Your task to perform on an android device: open app "Google Sheets" (install if not already installed) Image 0: 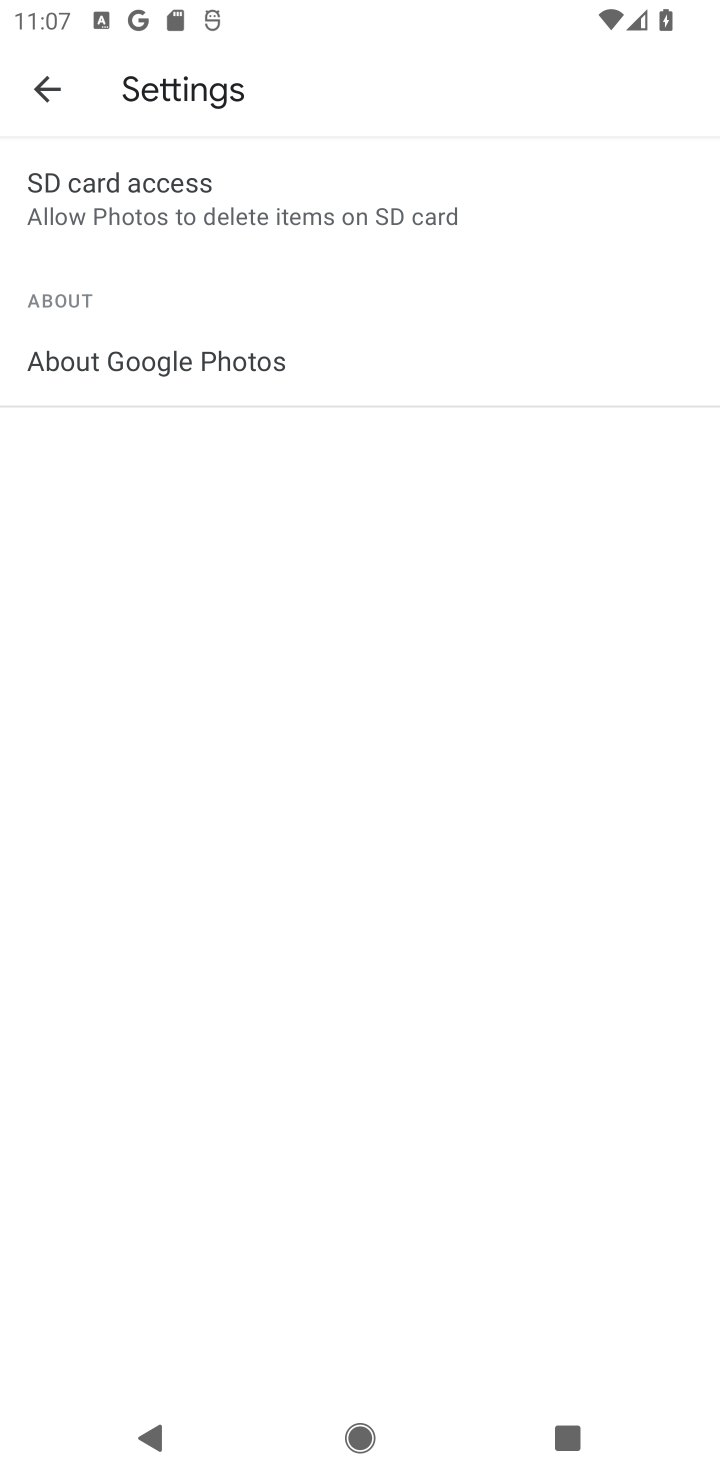
Step 0: press back button
Your task to perform on an android device: open app "Google Sheets" (install if not already installed) Image 1: 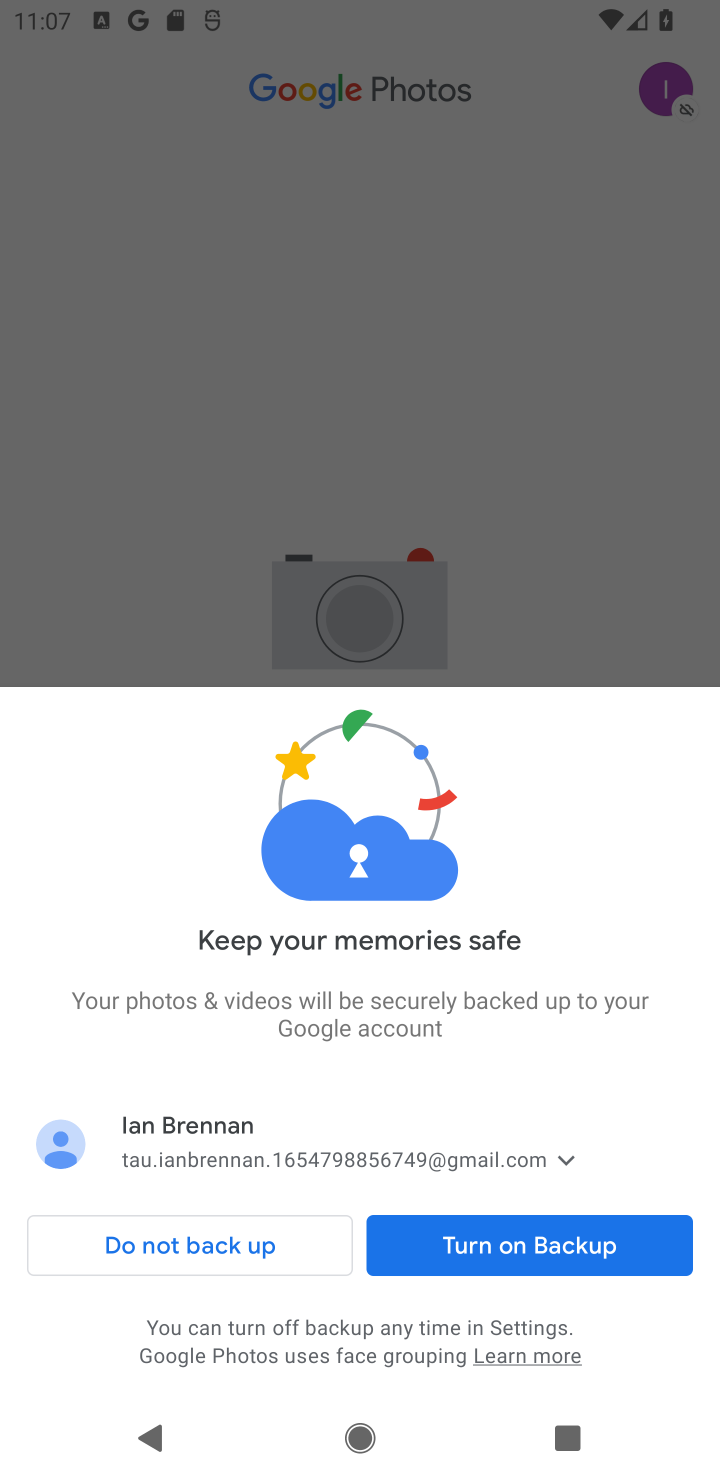
Step 1: press back button
Your task to perform on an android device: open app "Google Sheets" (install if not already installed) Image 2: 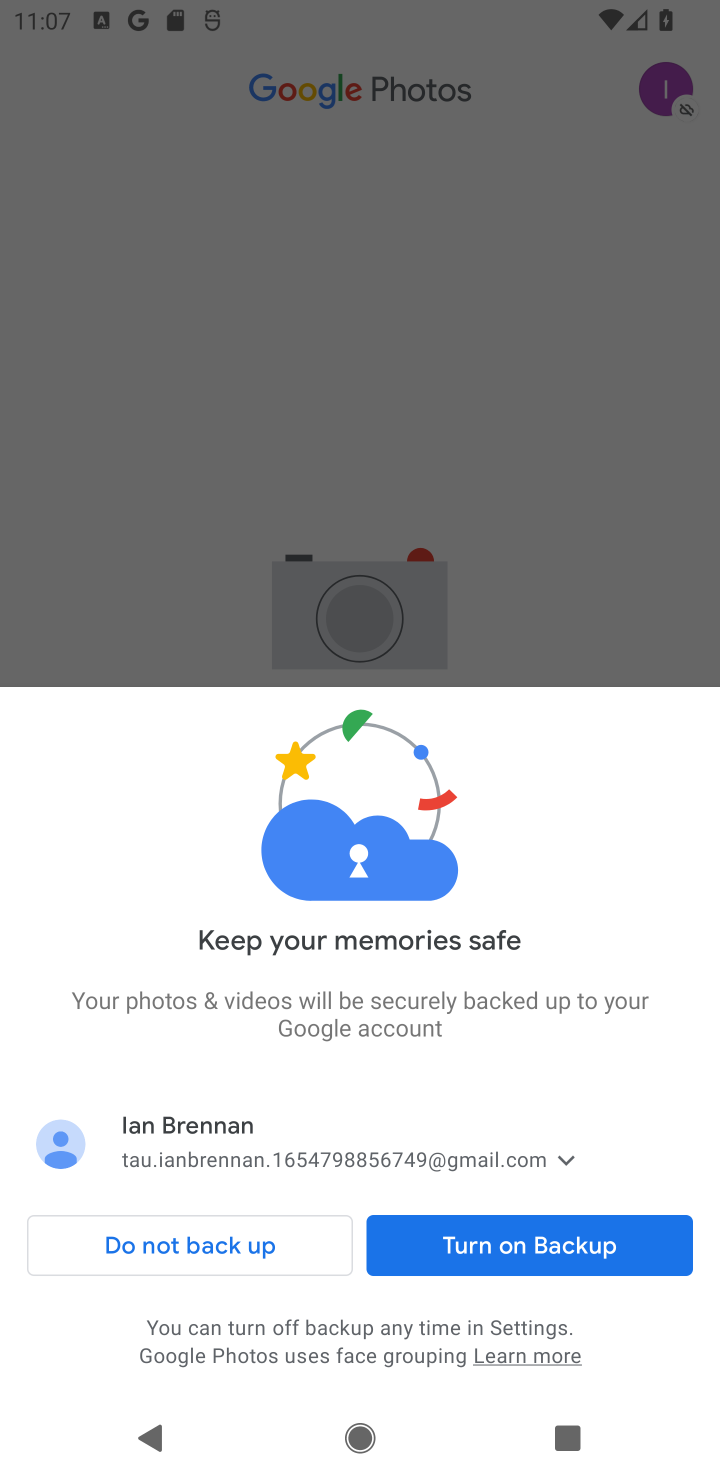
Step 2: press home button
Your task to perform on an android device: open app "Google Sheets" (install if not already installed) Image 3: 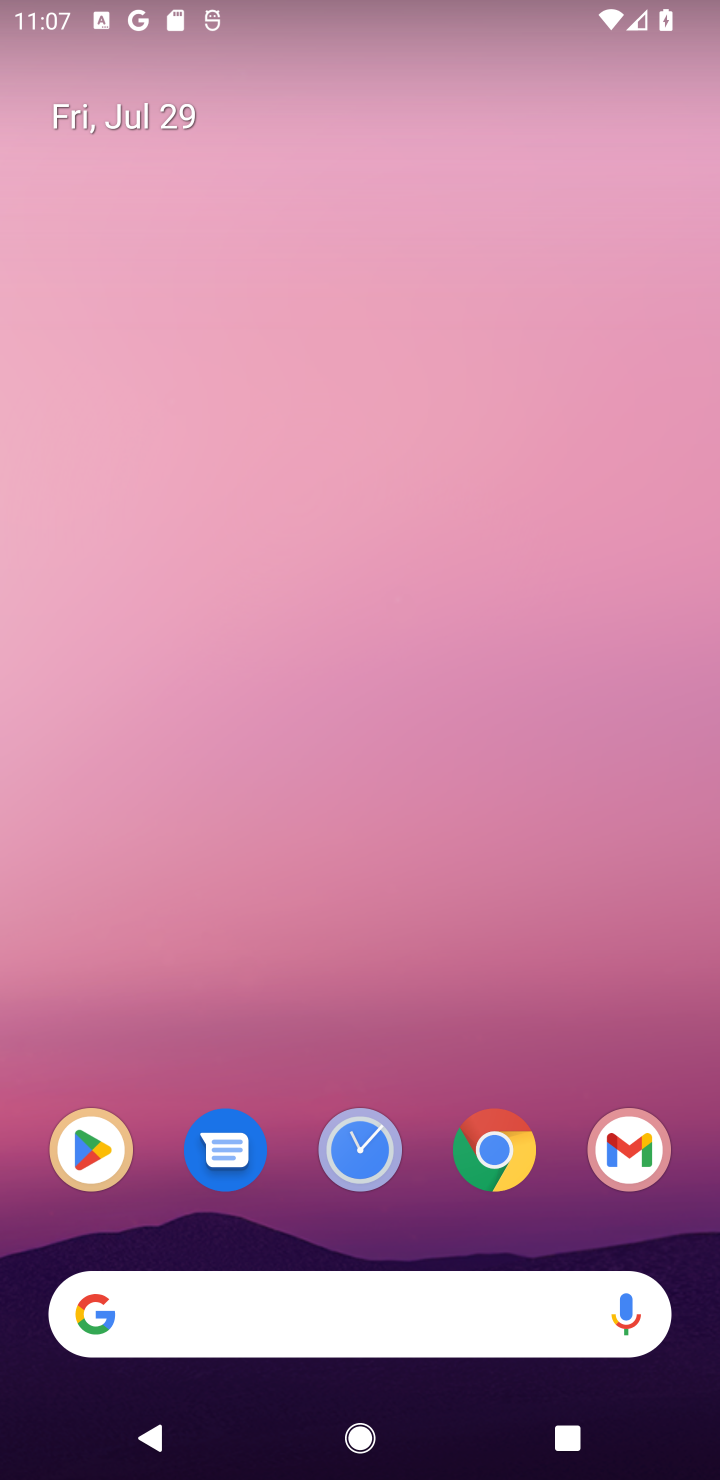
Step 3: click (93, 1165)
Your task to perform on an android device: open app "Google Sheets" (install if not already installed) Image 4: 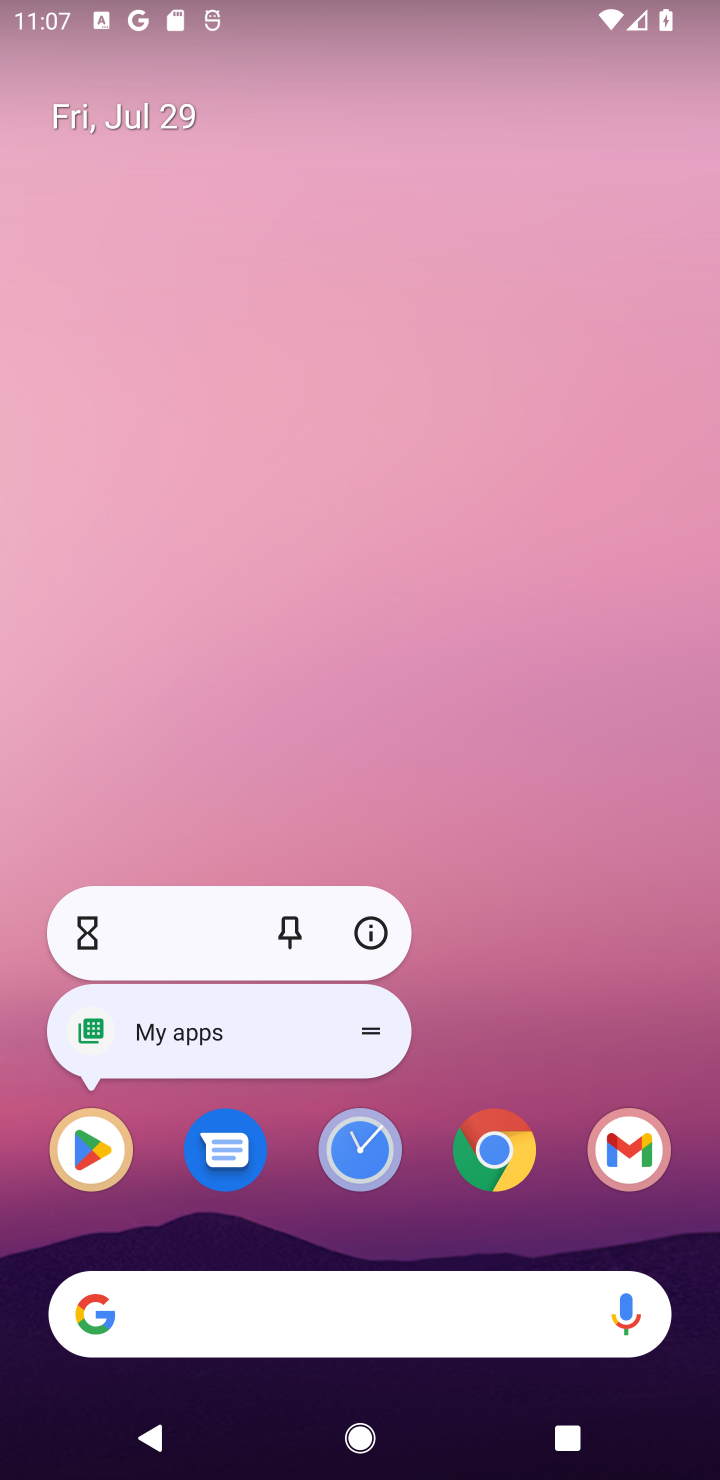
Step 4: click (97, 1157)
Your task to perform on an android device: open app "Google Sheets" (install if not already installed) Image 5: 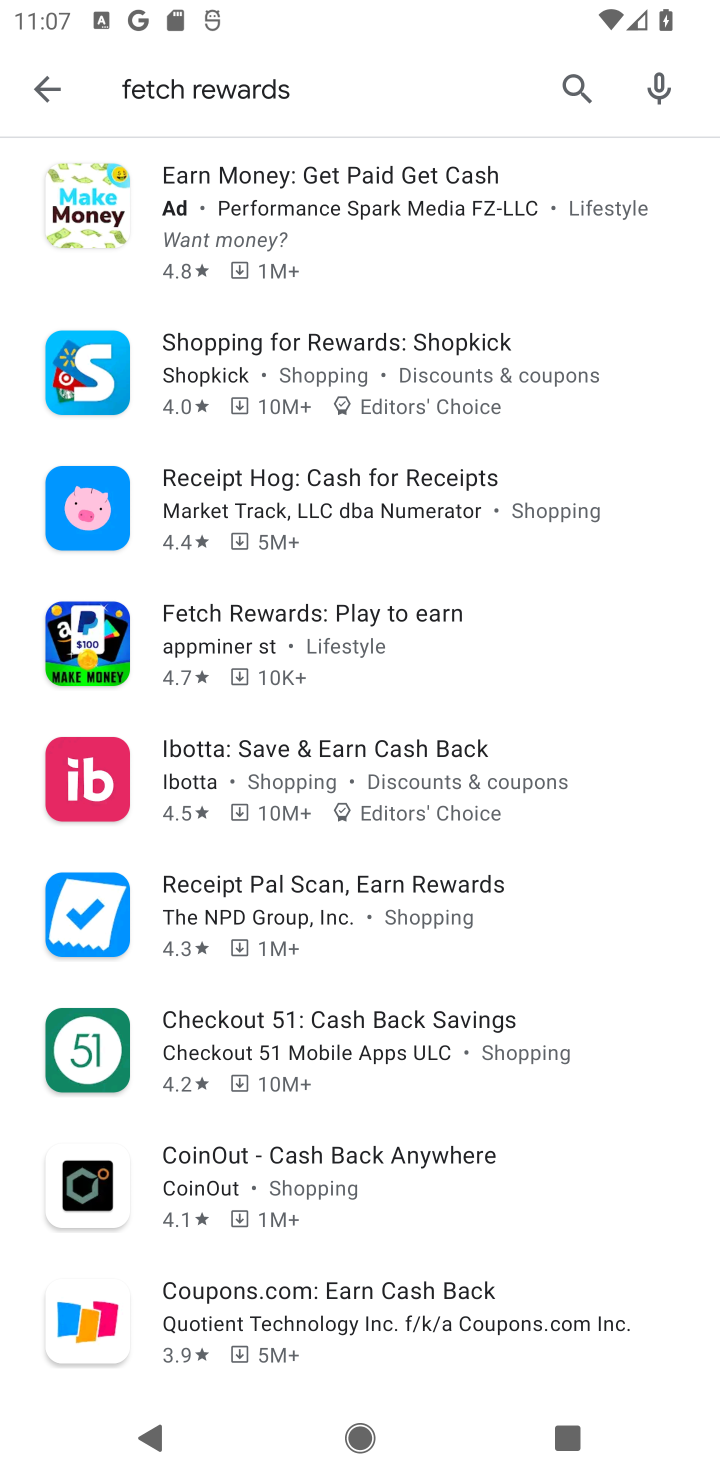
Step 5: click (585, 72)
Your task to perform on an android device: open app "Google Sheets" (install if not already installed) Image 6: 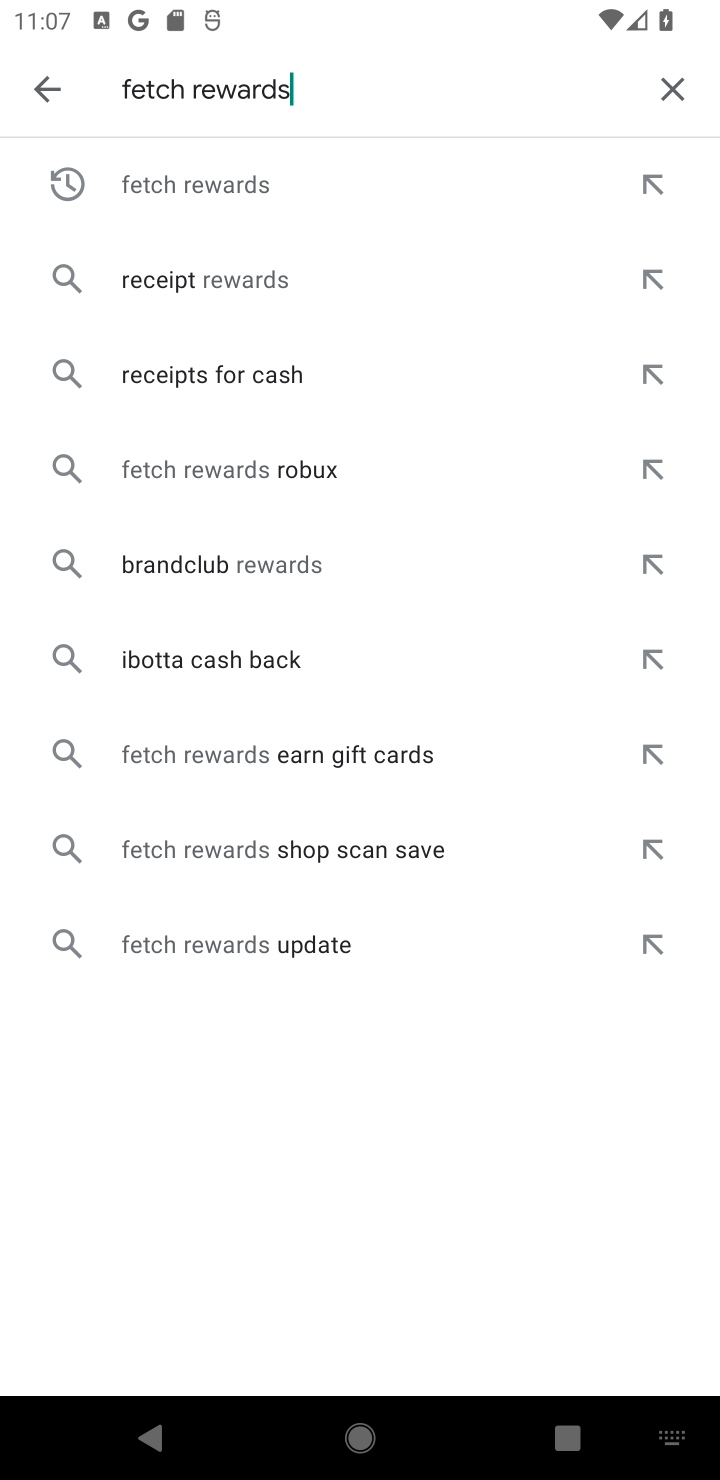
Step 6: click (644, 84)
Your task to perform on an android device: open app "Google Sheets" (install if not already installed) Image 7: 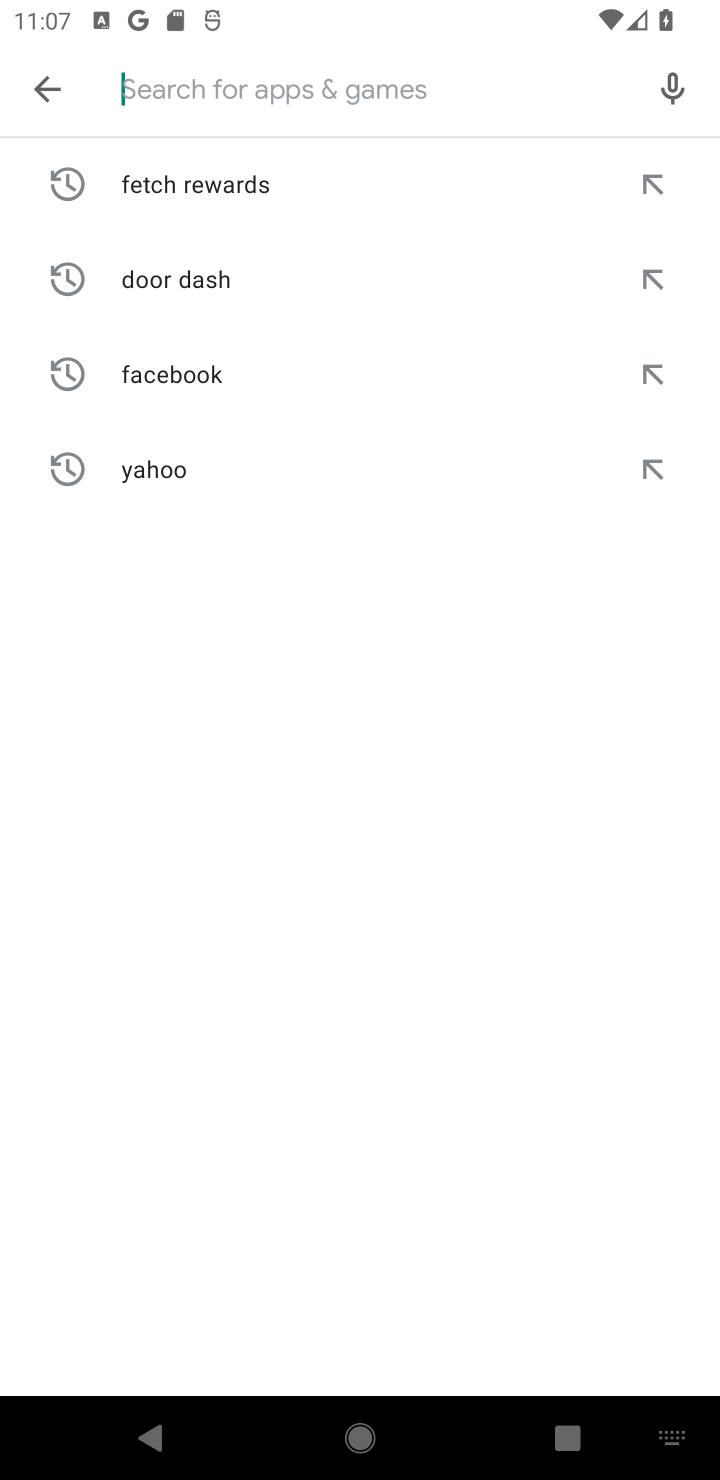
Step 7: click (237, 87)
Your task to perform on an android device: open app "Google Sheets" (install if not already installed) Image 8: 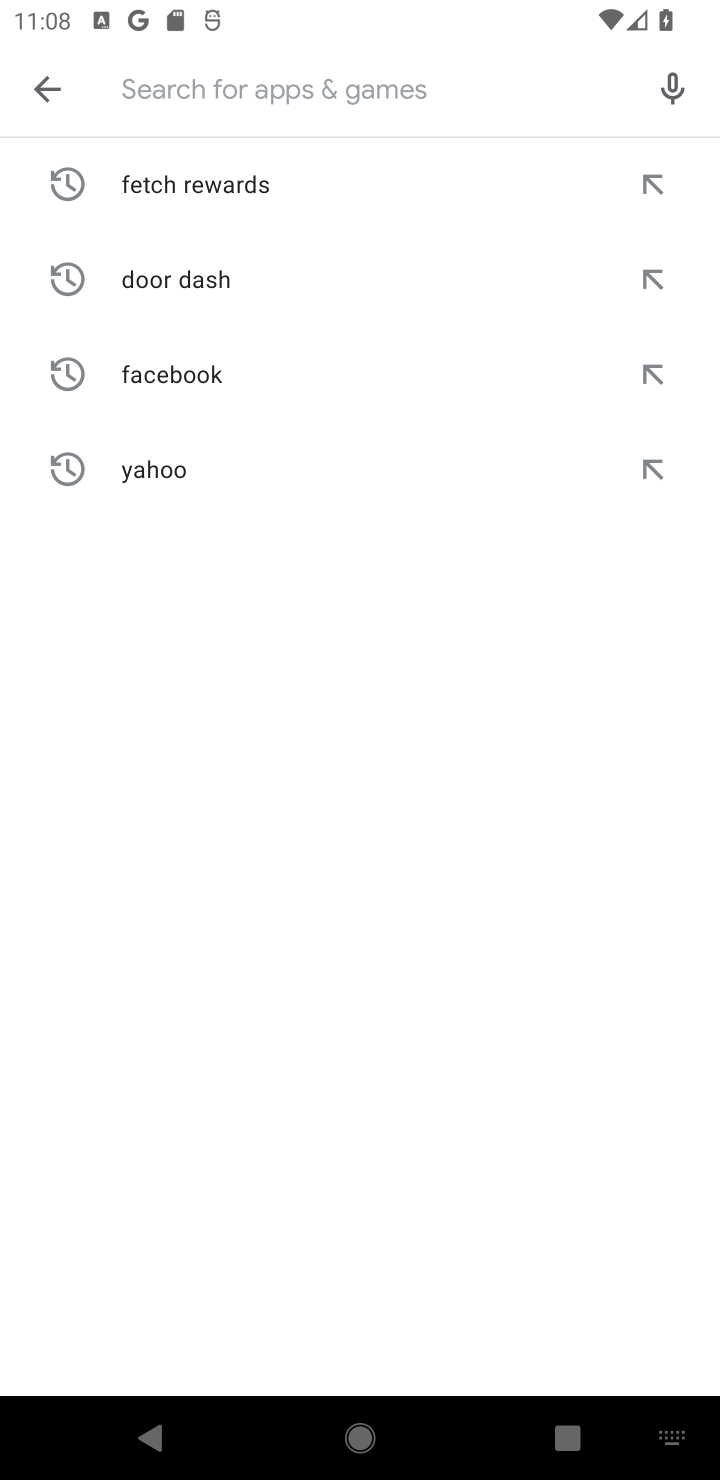
Step 8: type "google sheets"
Your task to perform on an android device: open app "Google Sheets" (install if not already installed) Image 9: 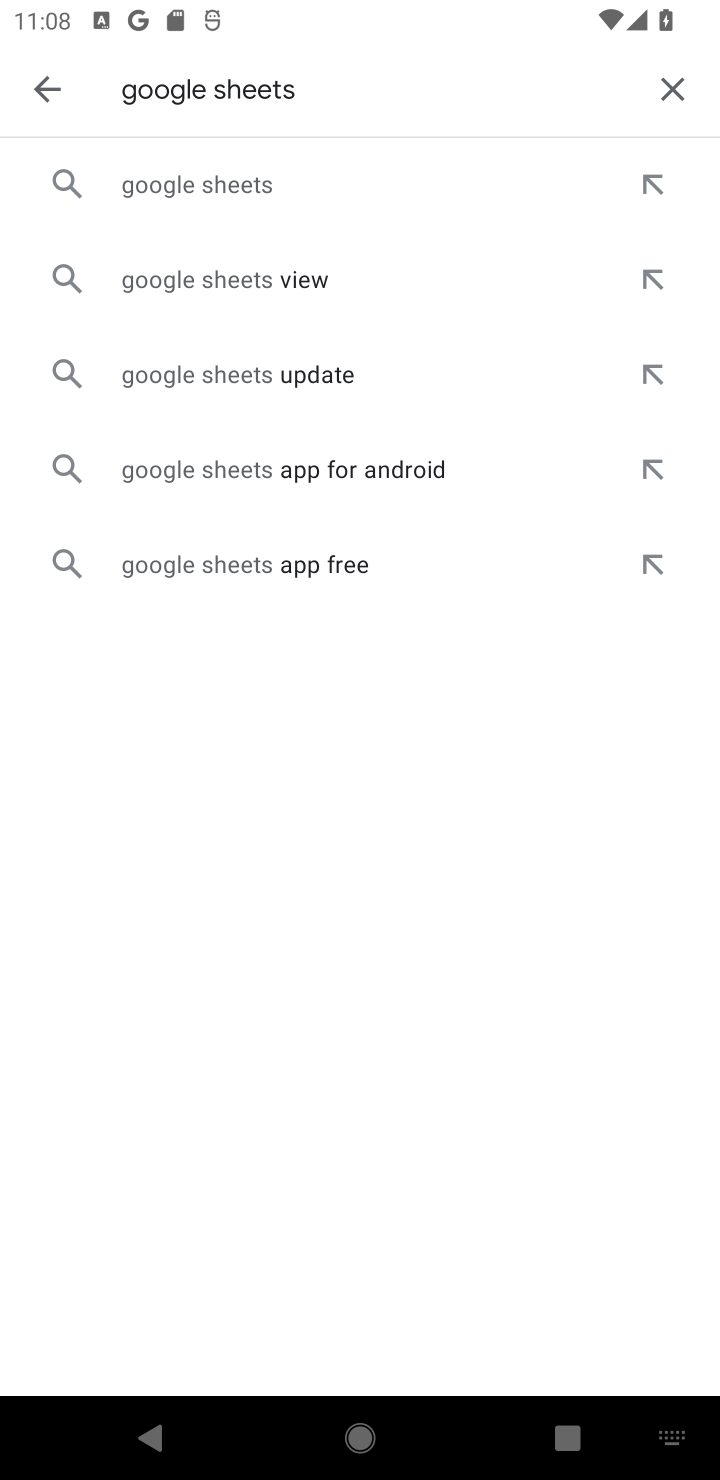
Step 9: click (272, 179)
Your task to perform on an android device: open app "Google Sheets" (install if not already installed) Image 10: 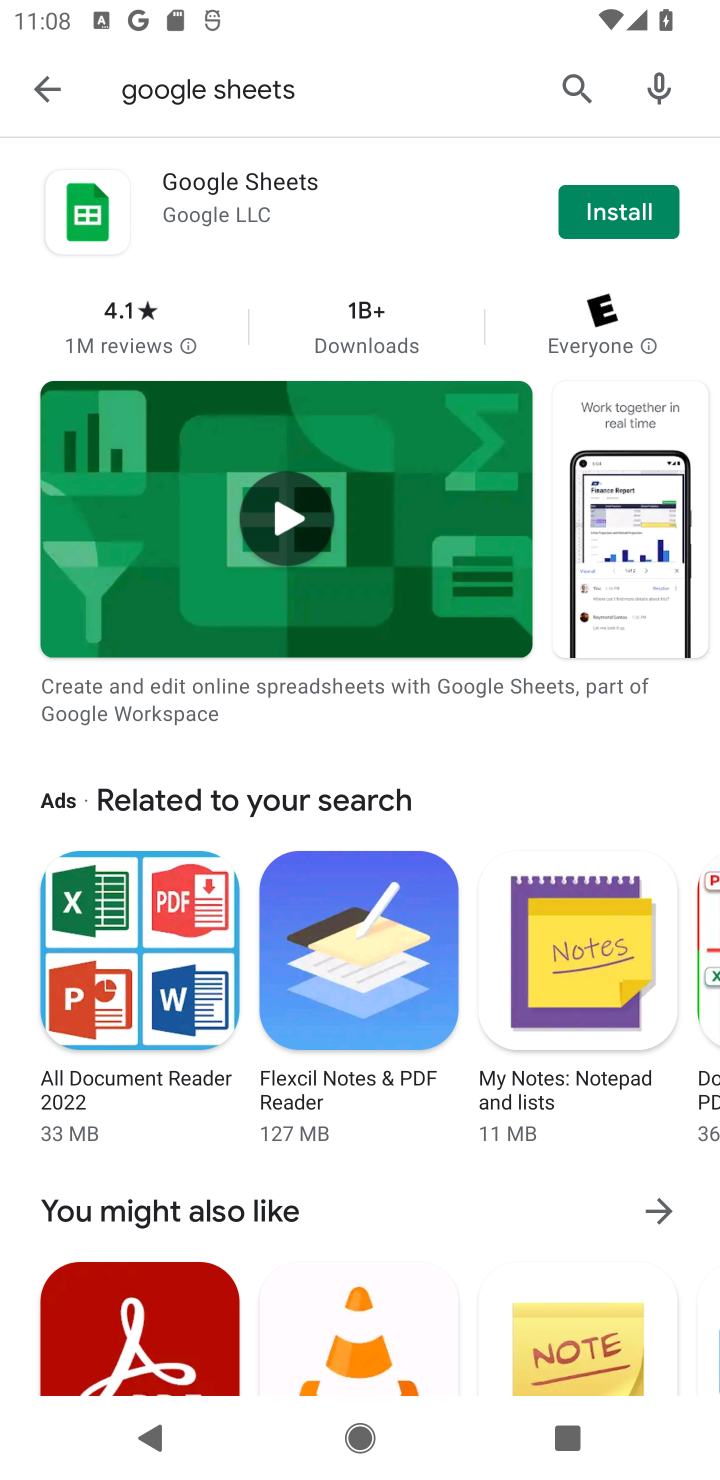
Step 10: click (628, 207)
Your task to perform on an android device: open app "Google Sheets" (install if not already installed) Image 11: 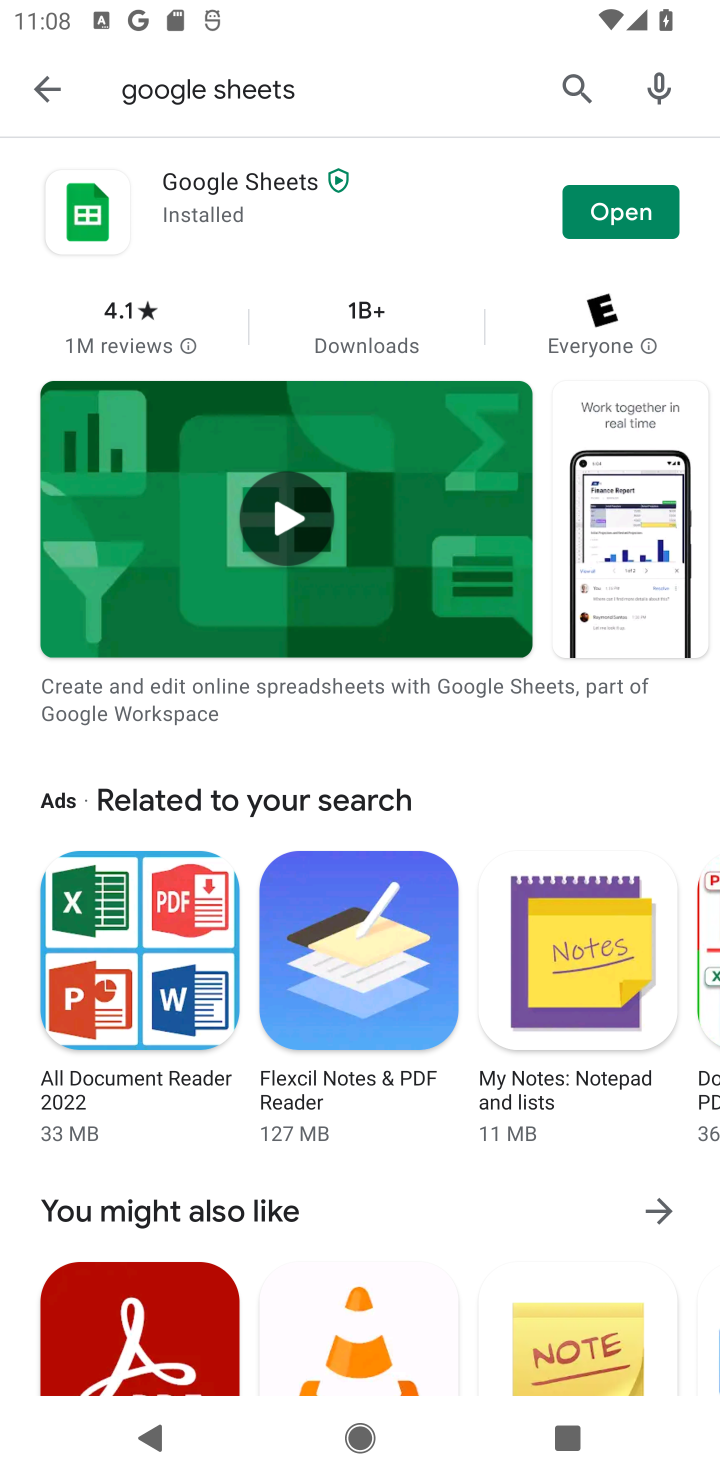
Step 11: click (646, 196)
Your task to perform on an android device: open app "Google Sheets" (install if not already installed) Image 12: 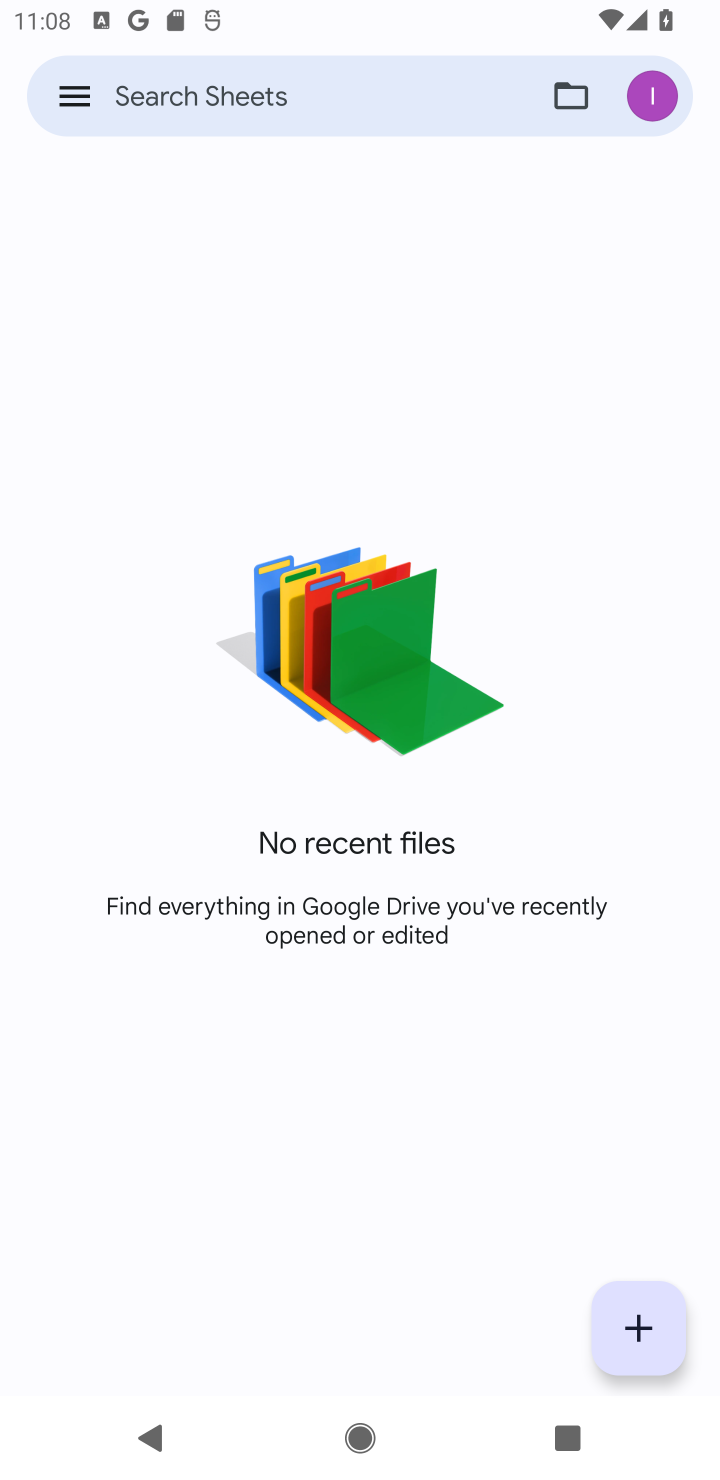
Step 12: press back button
Your task to perform on an android device: open app "Google Sheets" (install if not already installed) Image 13: 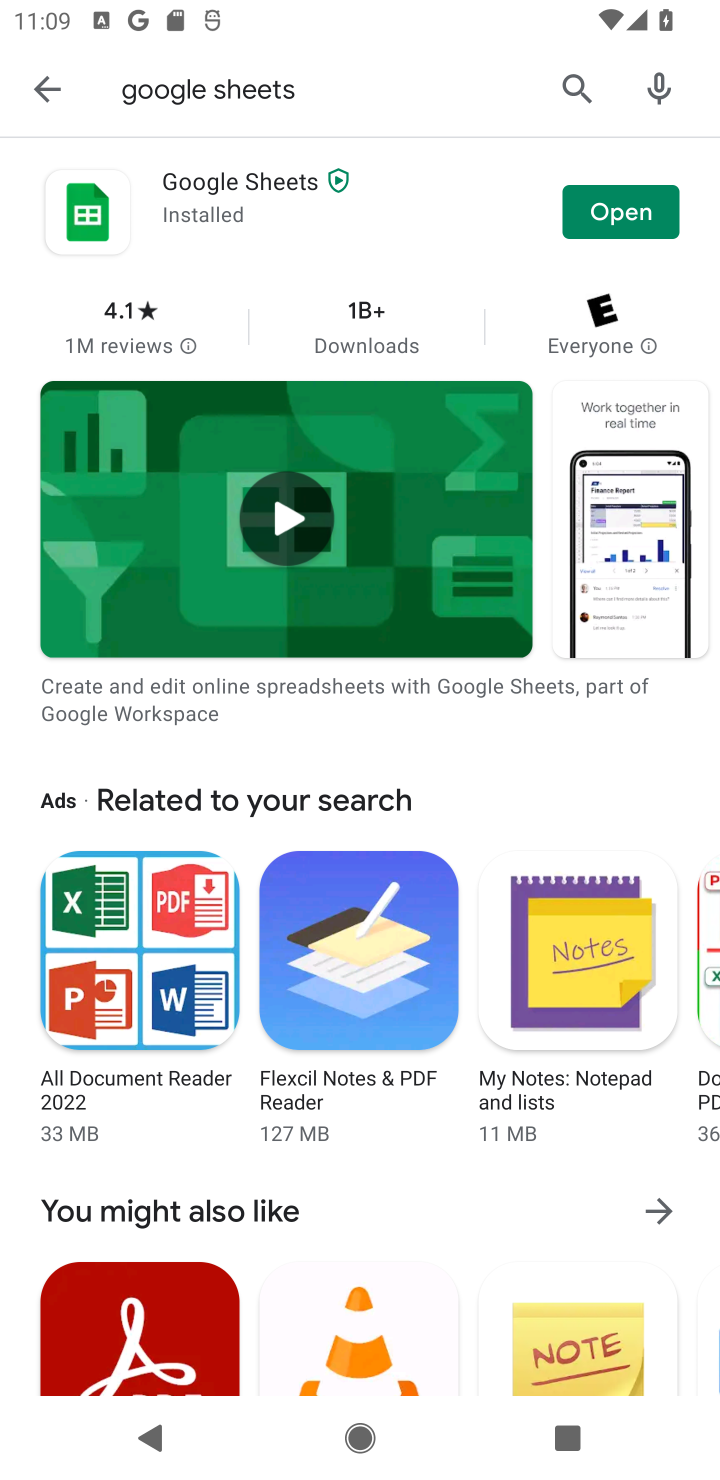
Step 13: click (645, 209)
Your task to perform on an android device: open app "Google Sheets" (install if not already installed) Image 14: 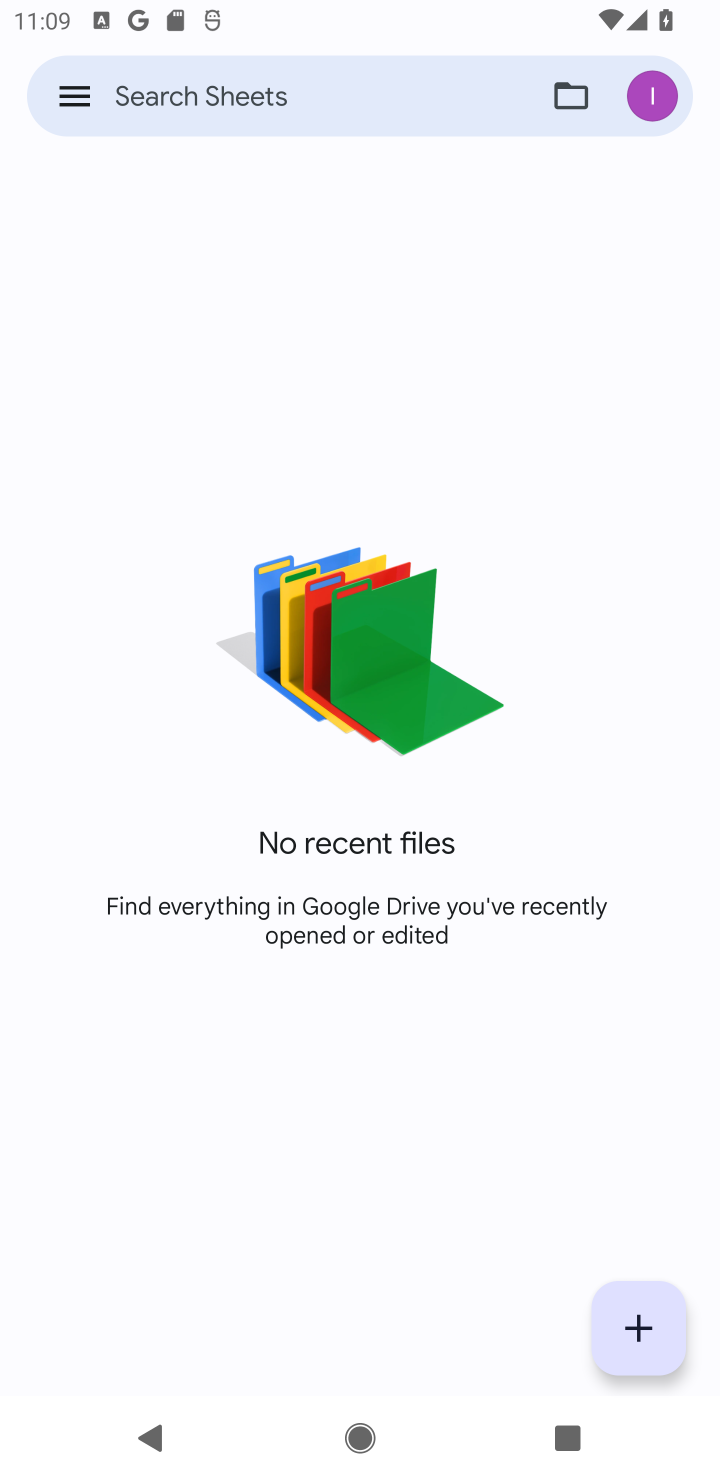
Step 14: task complete